Your task to perform on an android device: turn on bluetooth scan Image 0: 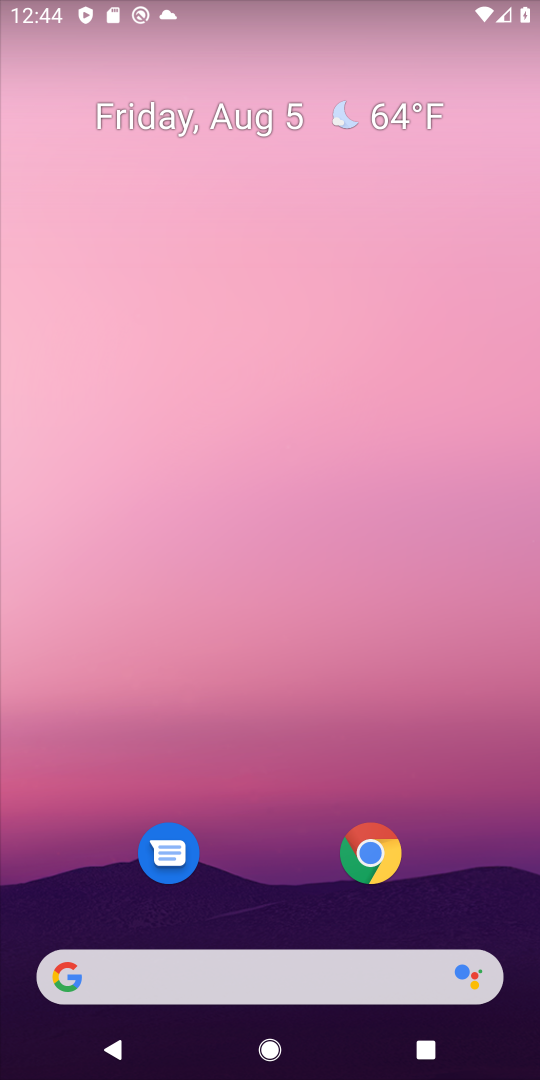
Step 0: drag from (237, 832) to (206, 1)
Your task to perform on an android device: turn on bluetooth scan Image 1: 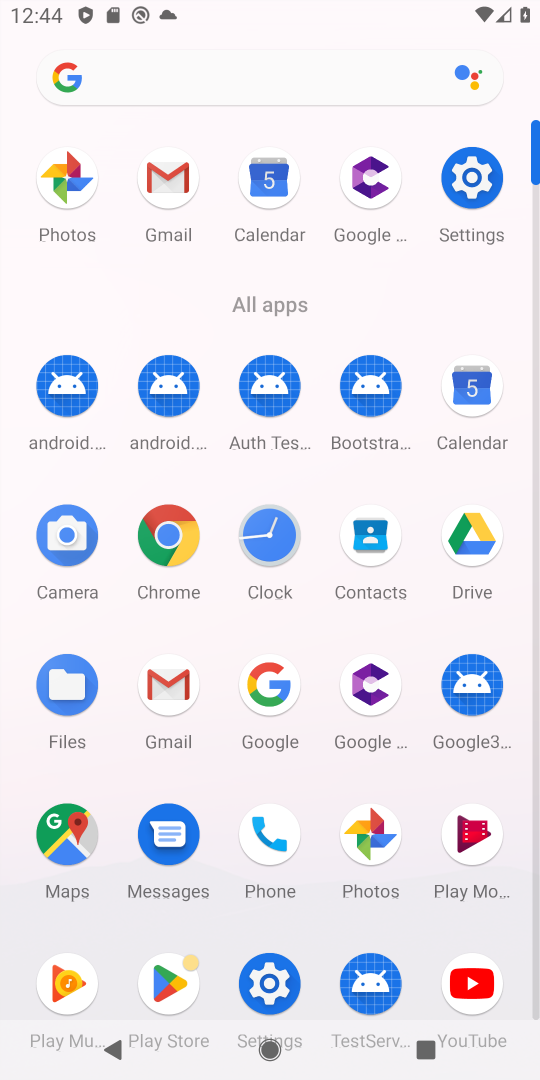
Step 1: click (482, 273)
Your task to perform on an android device: turn on bluetooth scan Image 2: 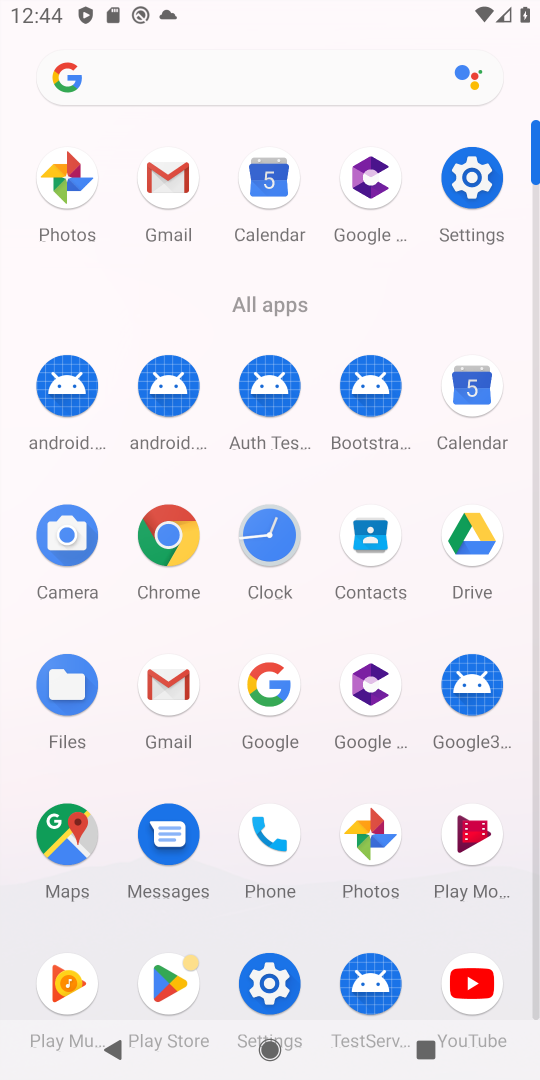
Step 2: click (475, 222)
Your task to perform on an android device: turn on bluetooth scan Image 3: 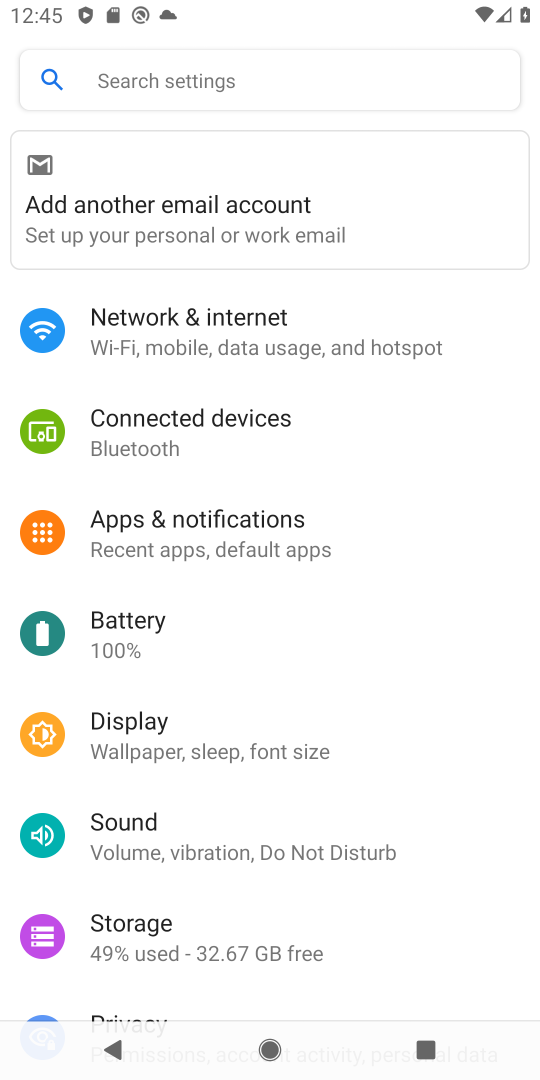
Step 3: drag from (301, 825) to (254, 507)
Your task to perform on an android device: turn on bluetooth scan Image 4: 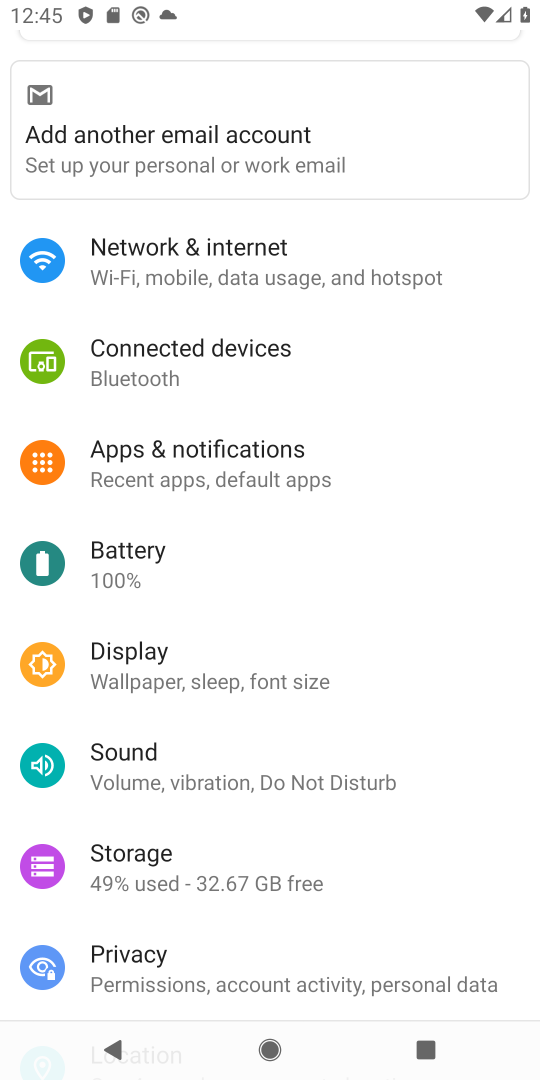
Step 4: drag from (283, 747) to (286, 459)
Your task to perform on an android device: turn on bluetooth scan Image 5: 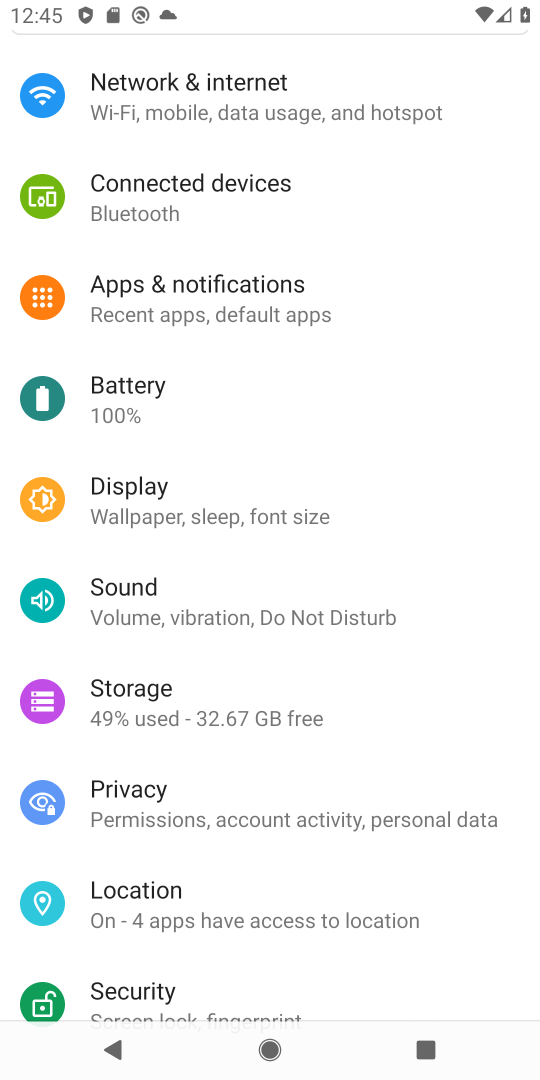
Step 5: click (120, 924)
Your task to perform on an android device: turn on bluetooth scan Image 6: 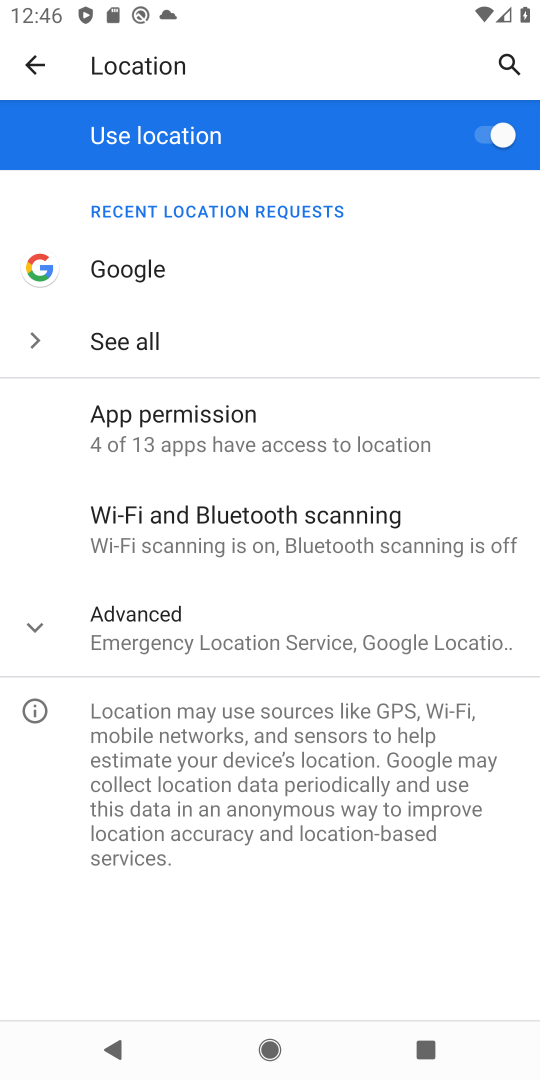
Step 6: click (354, 517)
Your task to perform on an android device: turn on bluetooth scan Image 7: 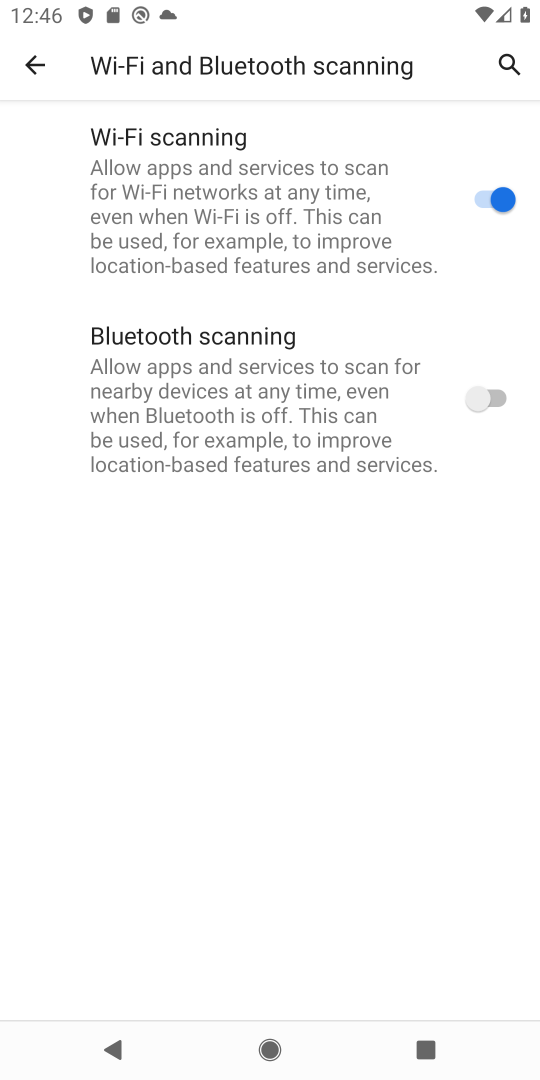
Step 7: click (506, 393)
Your task to perform on an android device: turn on bluetooth scan Image 8: 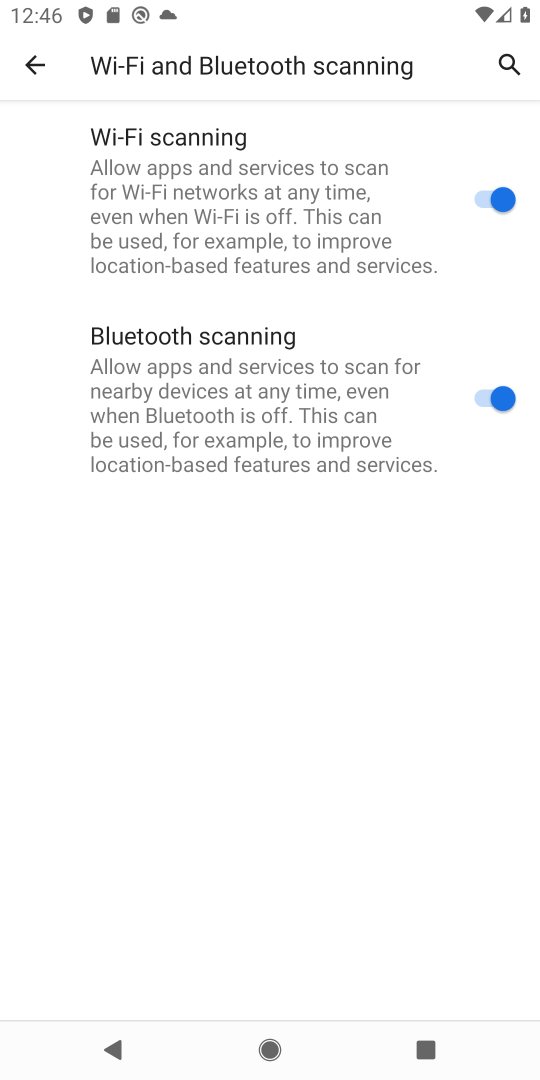
Step 8: task complete